Your task to perform on an android device: see creations saved in the google photos Image 0: 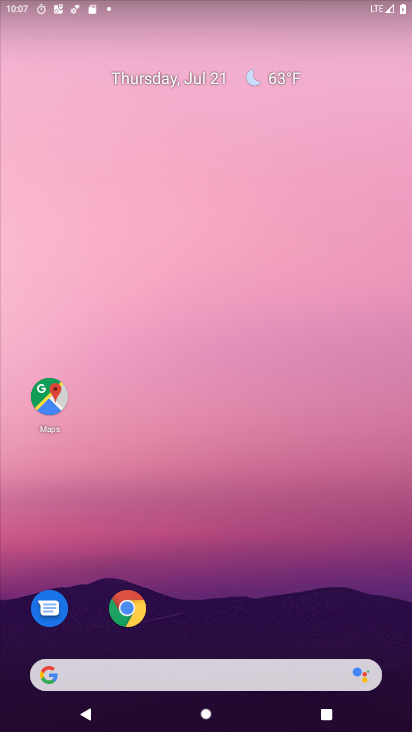
Step 0: drag from (244, 645) to (249, 200)
Your task to perform on an android device: see creations saved in the google photos Image 1: 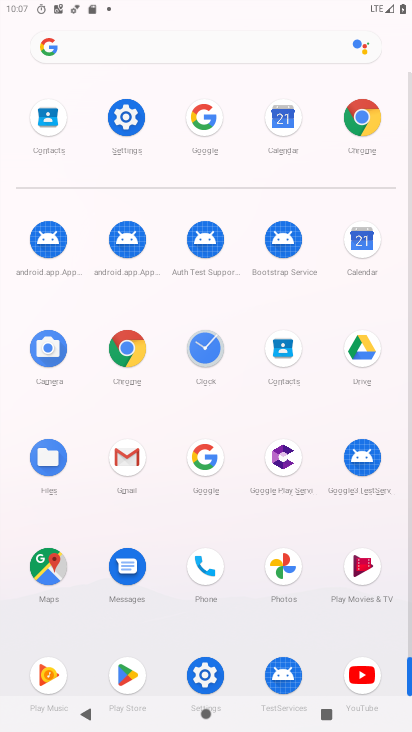
Step 1: click (276, 586)
Your task to perform on an android device: see creations saved in the google photos Image 2: 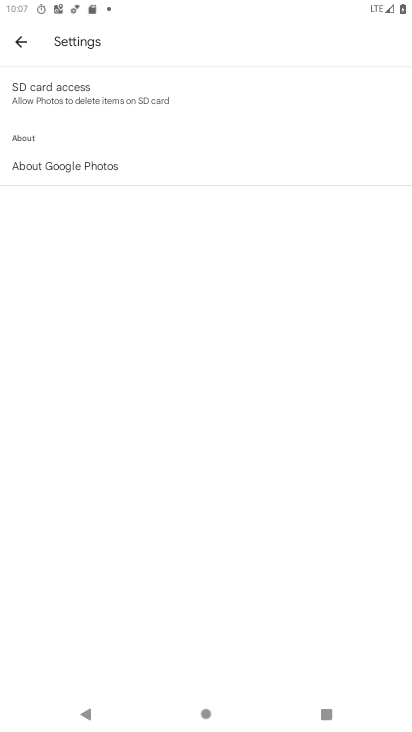
Step 2: click (22, 43)
Your task to perform on an android device: see creations saved in the google photos Image 3: 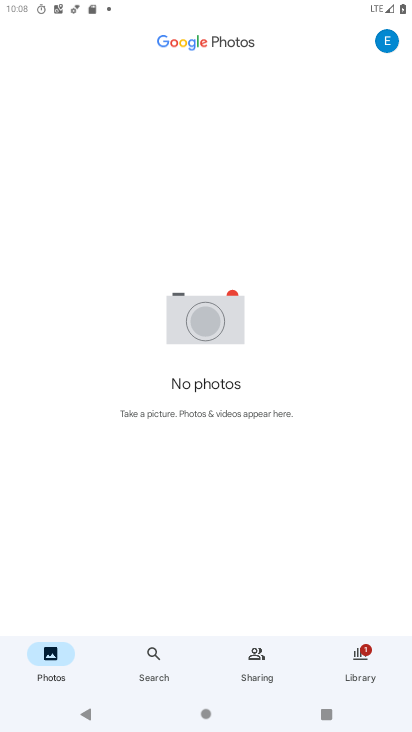
Step 3: task complete